Your task to perform on an android device: turn on translation in the chrome app Image 0: 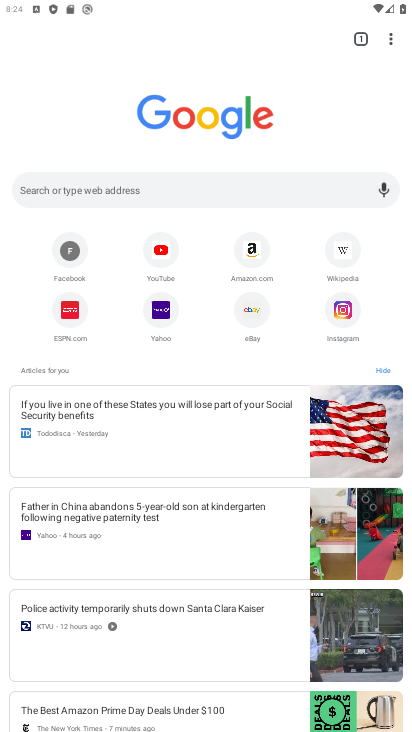
Step 0: click (389, 46)
Your task to perform on an android device: turn on translation in the chrome app Image 1: 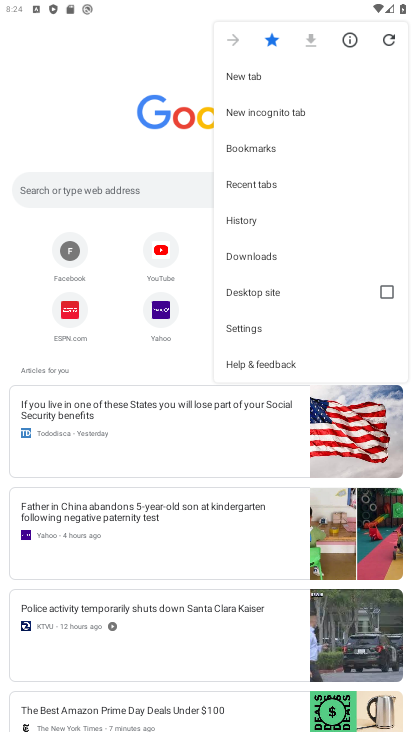
Step 1: click (250, 321)
Your task to perform on an android device: turn on translation in the chrome app Image 2: 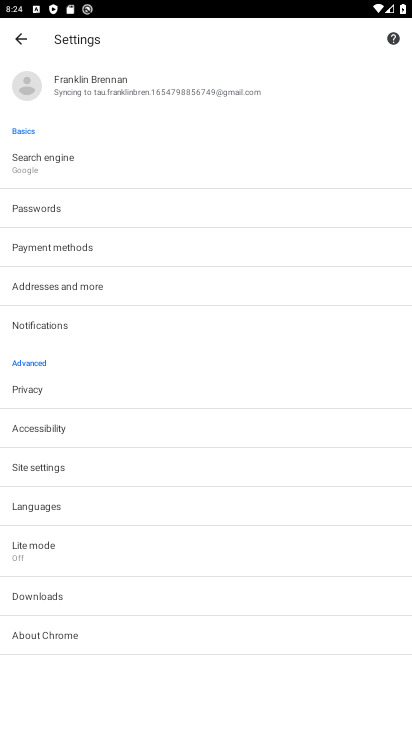
Step 2: click (33, 502)
Your task to perform on an android device: turn on translation in the chrome app Image 3: 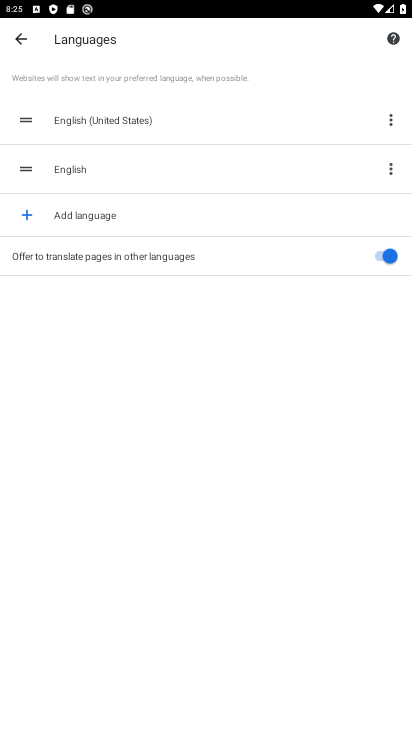
Step 3: task complete